Your task to perform on an android device: Show me popular videos on Youtube Image 0: 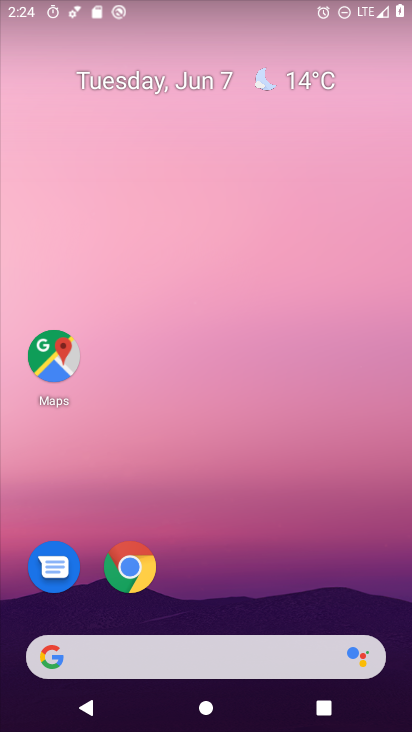
Step 0: drag from (259, 605) to (386, 78)
Your task to perform on an android device: Show me popular videos on Youtube Image 1: 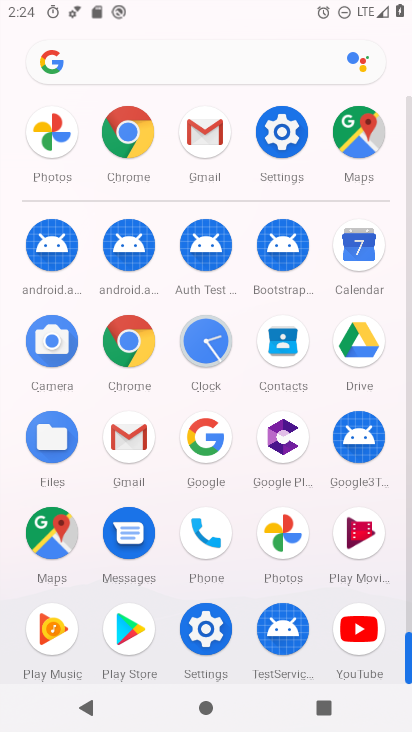
Step 1: click (348, 619)
Your task to perform on an android device: Show me popular videos on Youtube Image 2: 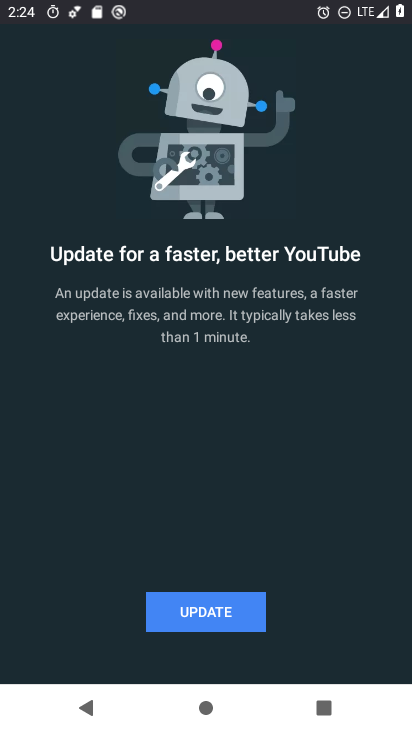
Step 2: click (259, 611)
Your task to perform on an android device: Show me popular videos on Youtube Image 3: 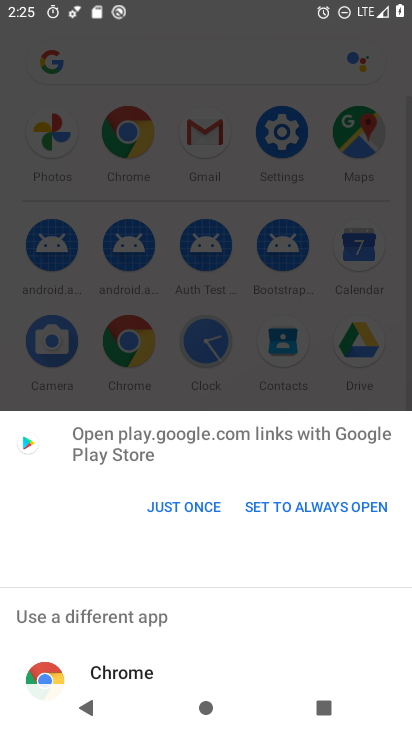
Step 3: click (172, 511)
Your task to perform on an android device: Show me popular videos on Youtube Image 4: 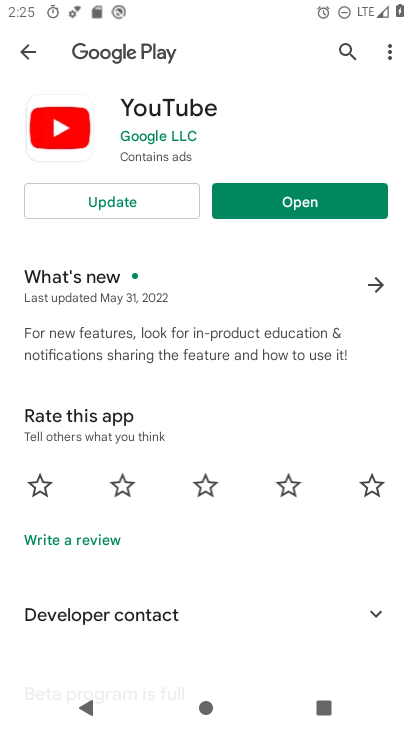
Step 4: click (110, 221)
Your task to perform on an android device: Show me popular videos on Youtube Image 5: 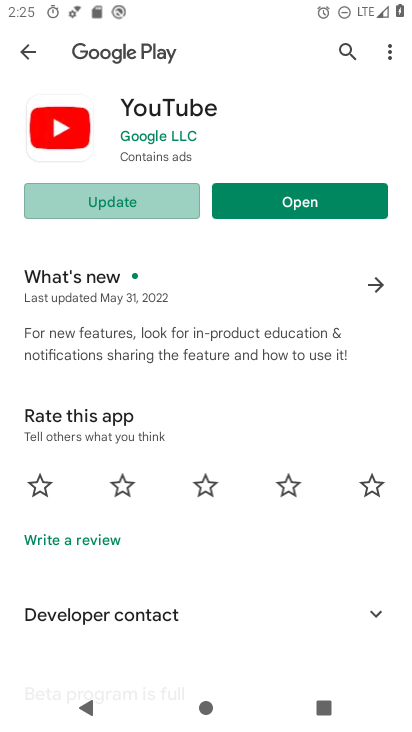
Step 5: click (108, 213)
Your task to perform on an android device: Show me popular videos on Youtube Image 6: 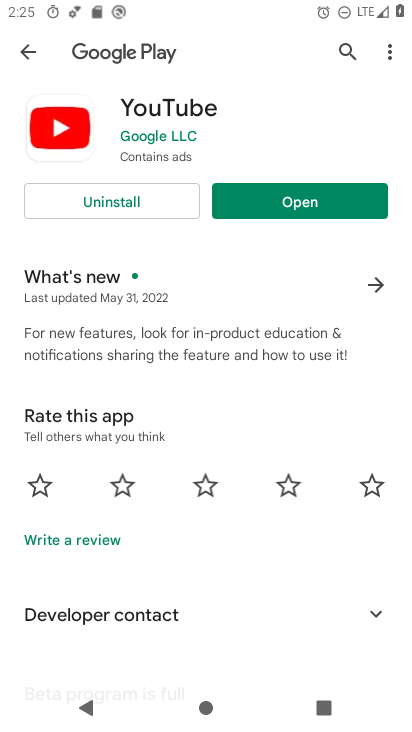
Step 6: type "popular videos"
Your task to perform on an android device: Show me popular videos on Youtube Image 7: 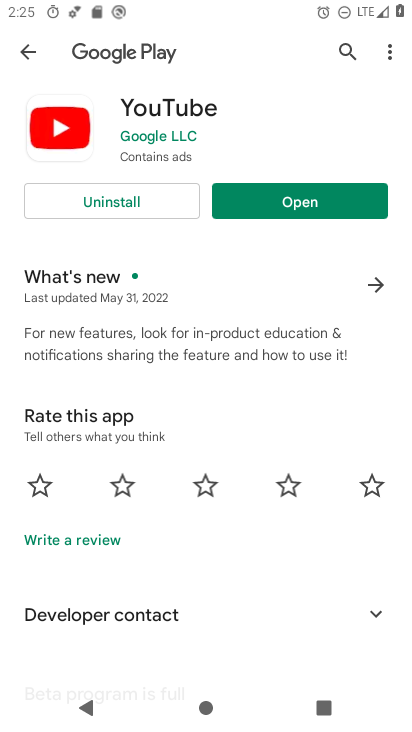
Step 7: click (272, 210)
Your task to perform on an android device: Show me popular videos on Youtube Image 8: 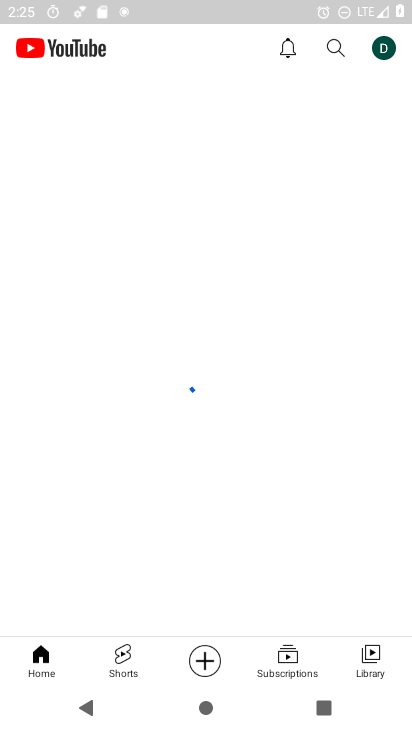
Step 8: click (337, 44)
Your task to perform on an android device: Show me popular videos on Youtube Image 9: 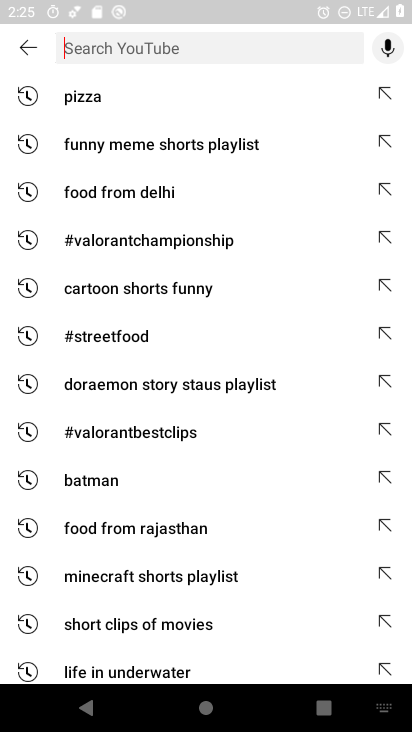
Step 9: type "popular videos"
Your task to perform on an android device: Show me popular videos on Youtube Image 10: 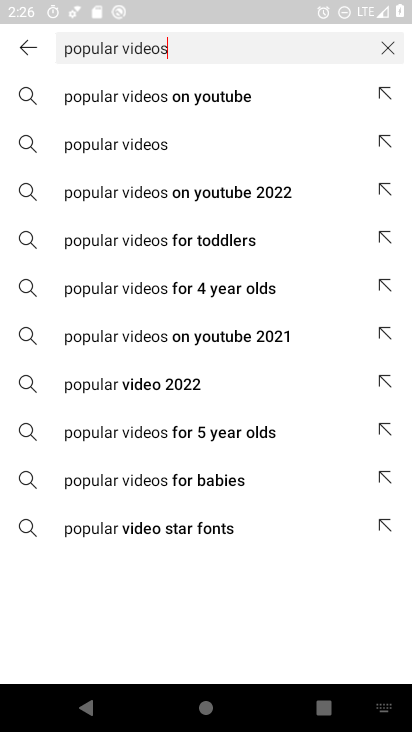
Step 10: click (180, 102)
Your task to perform on an android device: Show me popular videos on Youtube Image 11: 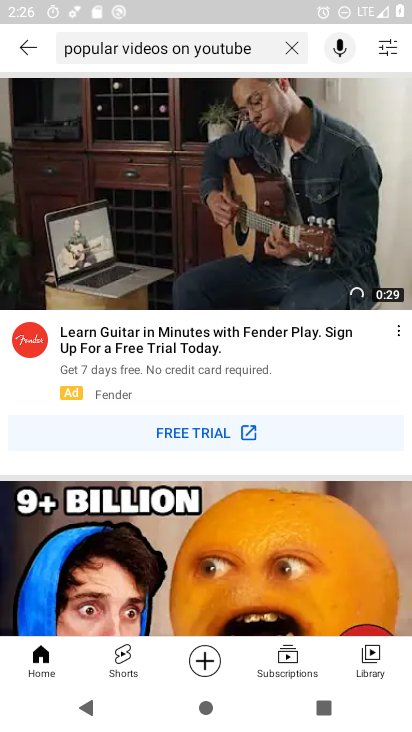
Step 11: task complete